Your task to perform on an android device: turn off airplane mode Image 0: 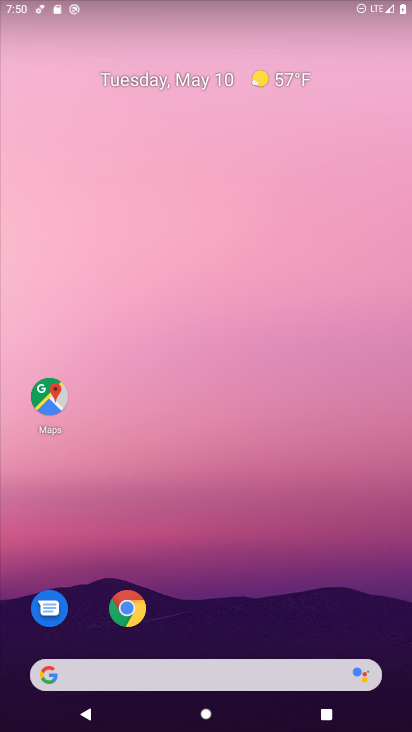
Step 0: drag from (200, 7) to (225, 455)
Your task to perform on an android device: turn off airplane mode Image 1: 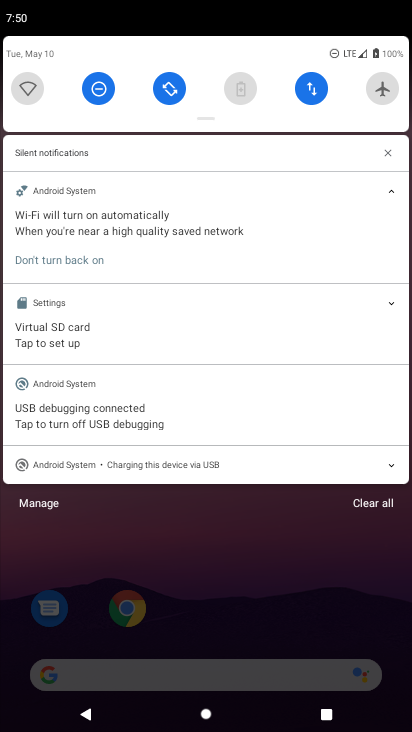
Step 1: task complete